Your task to perform on an android device: toggle sleep mode Image 0: 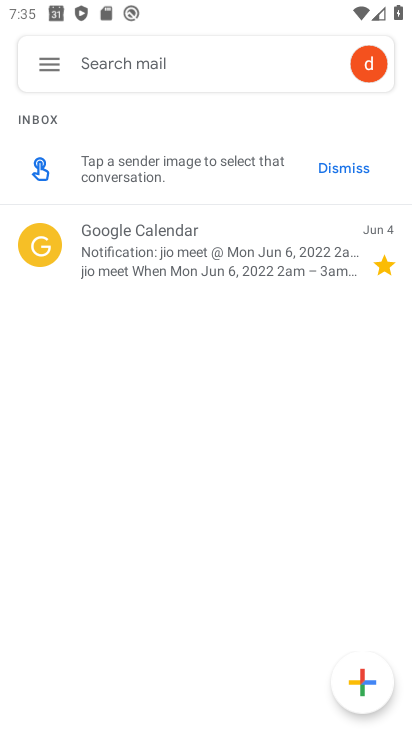
Step 0: press home button
Your task to perform on an android device: toggle sleep mode Image 1: 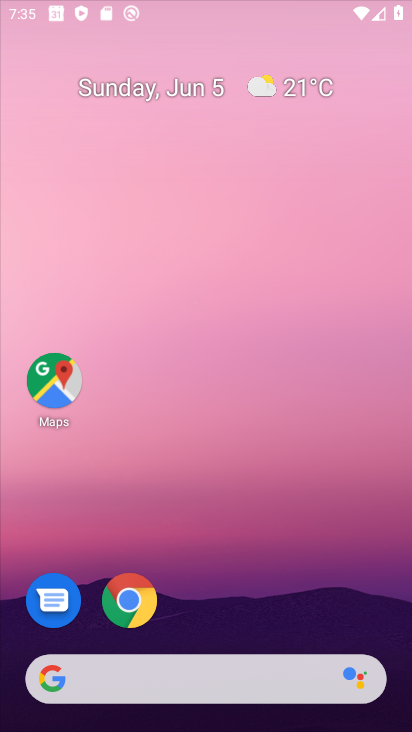
Step 1: drag from (180, 15) to (258, 666)
Your task to perform on an android device: toggle sleep mode Image 2: 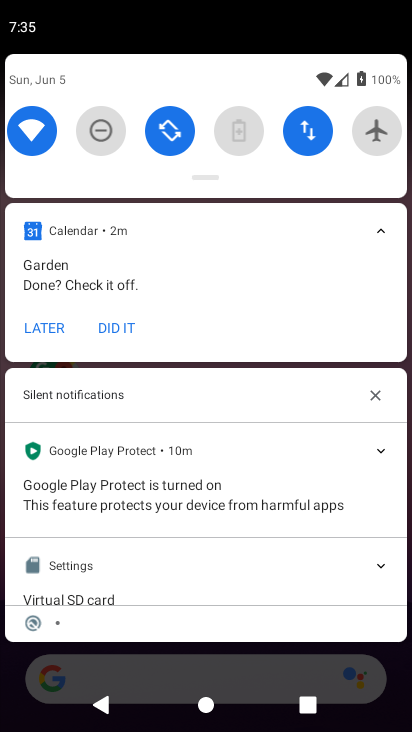
Step 2: drag from (203, 178) to (226, 636)
Your task to perform on an android device: toggle sleep mode Image 3: 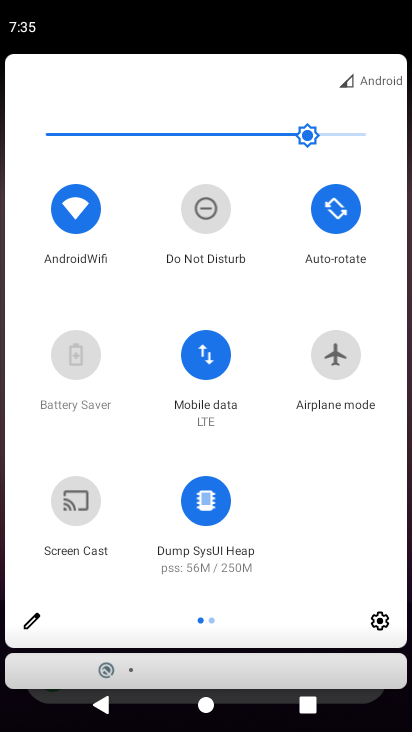
Step 3: click (17, 625)
Your task to perform on an android device: toggle sleep mode Image 4: 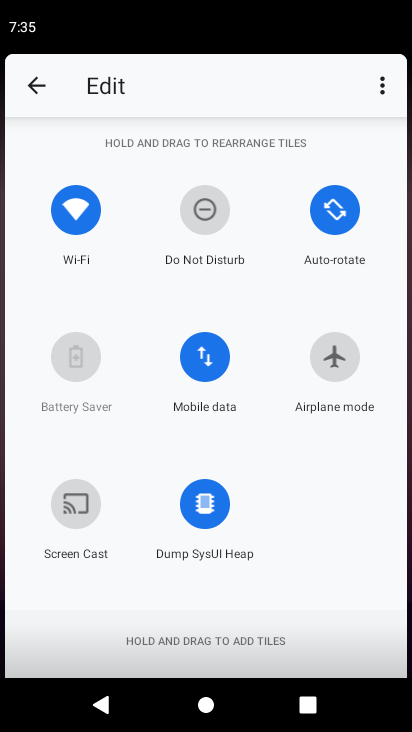
Step 4: task complete